Your task to perform on an android device: uninstall "Booking.com: Hotels and more" Image 0: 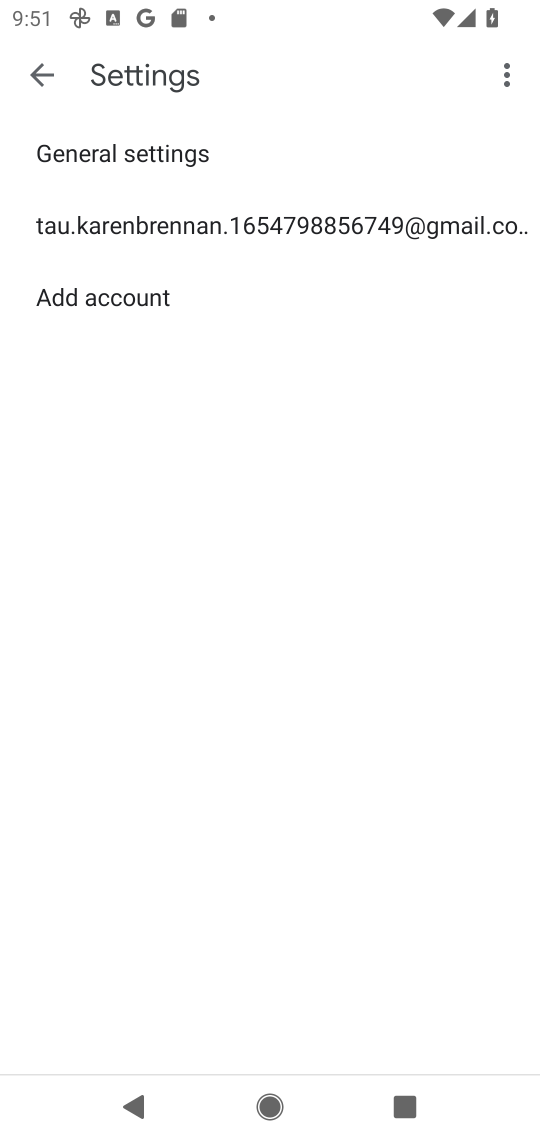
Step 0: press home button
Your task to perform on an android device: uninstall "Booking.com: Hotels and more" Image 1: 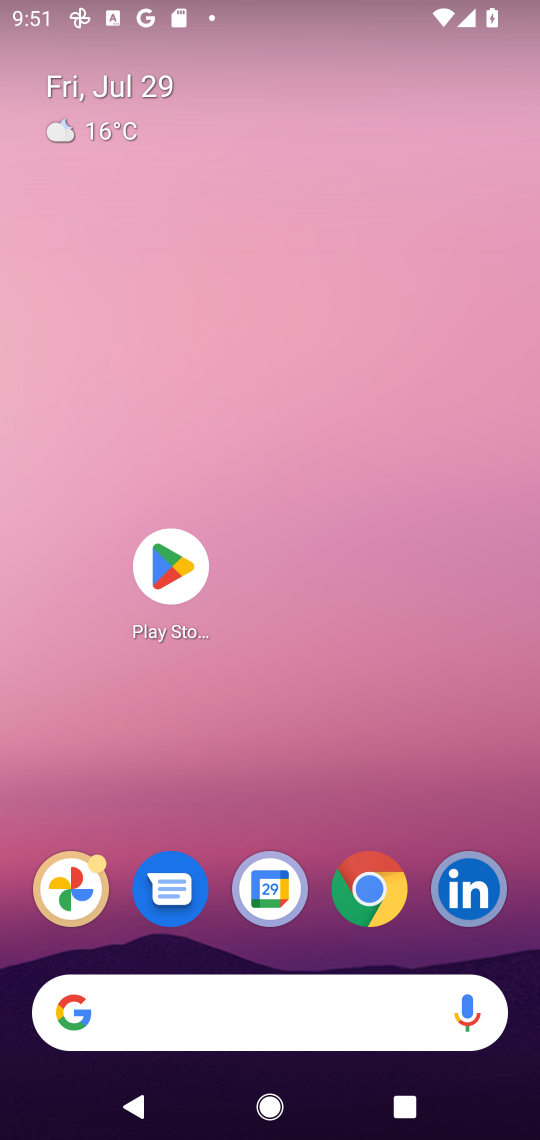
Step 1: click (189, 553)
Your task to perform on an android device: uninstall "Booking.com: Hotels and more" Image 2: 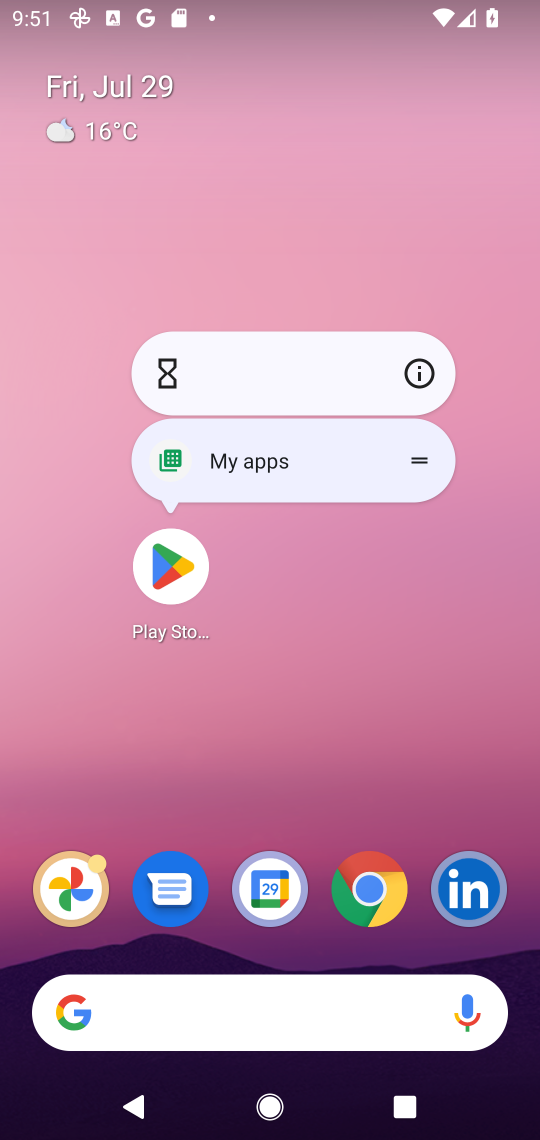
Step 2: click (164, 564)
Your task to perform on an android device: uninstall "Booking.com: Hotels and more" Image 3: 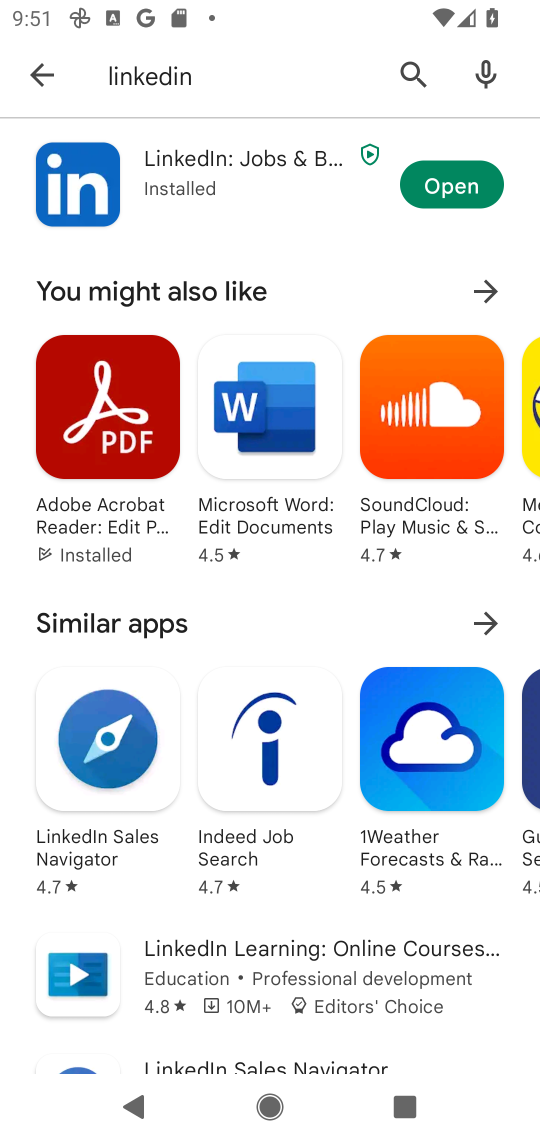
Step 3: click (403, 63)
Your task to perform on an android device: uninstall "Booking.com: Hotels and more" Image 4: 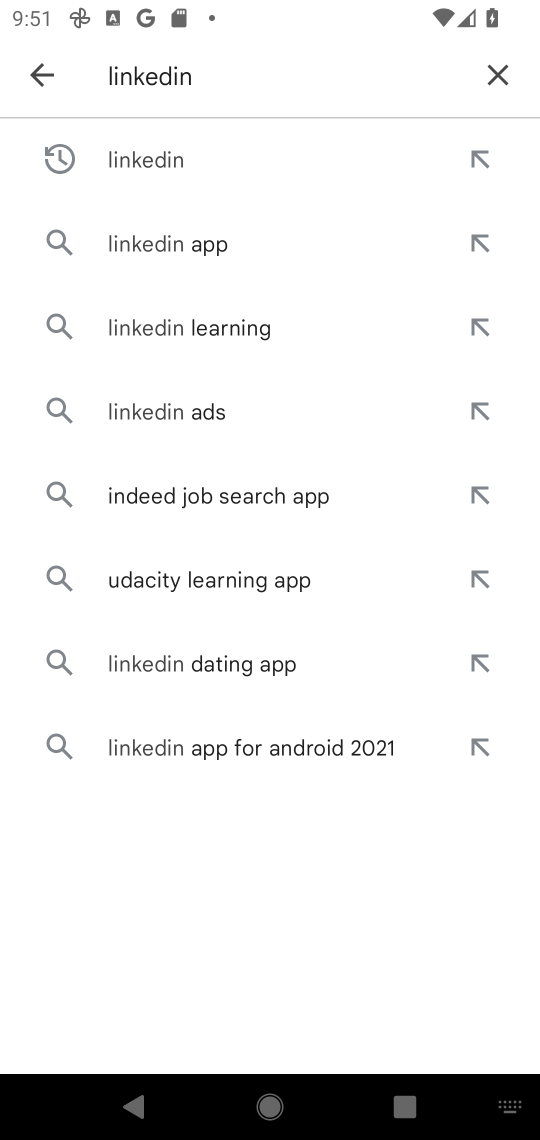
Step 4: click (491, 76)
Your task to perform on an android device: uninstall "Booking.com: Hotels and more" Image 5: 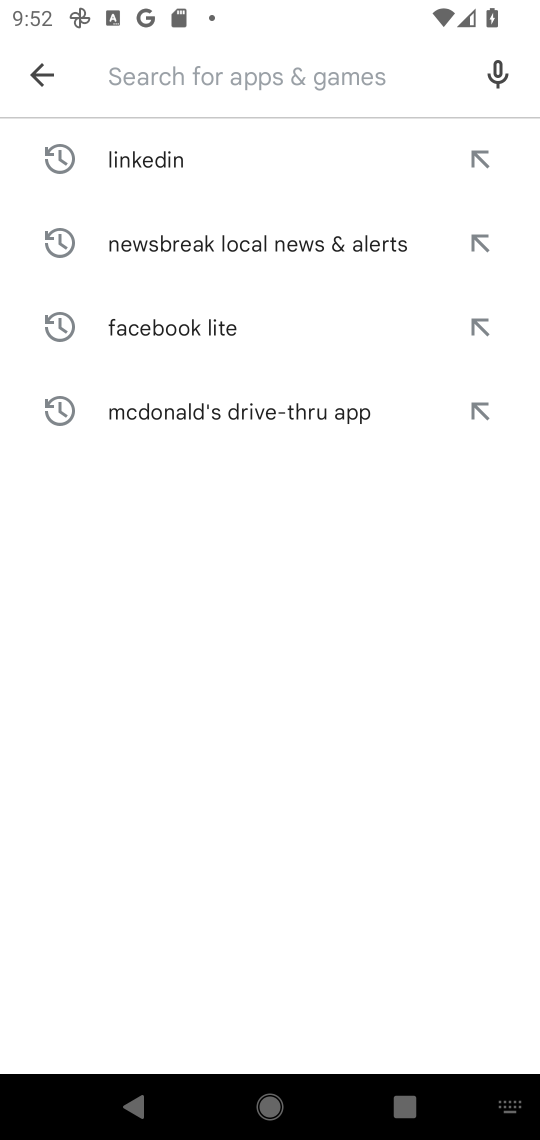
Step 5: type "Booking.com: Hotels and more"
Your task to perform on an android device: uninstall "Booking.com: Hotels and more" Image 6: 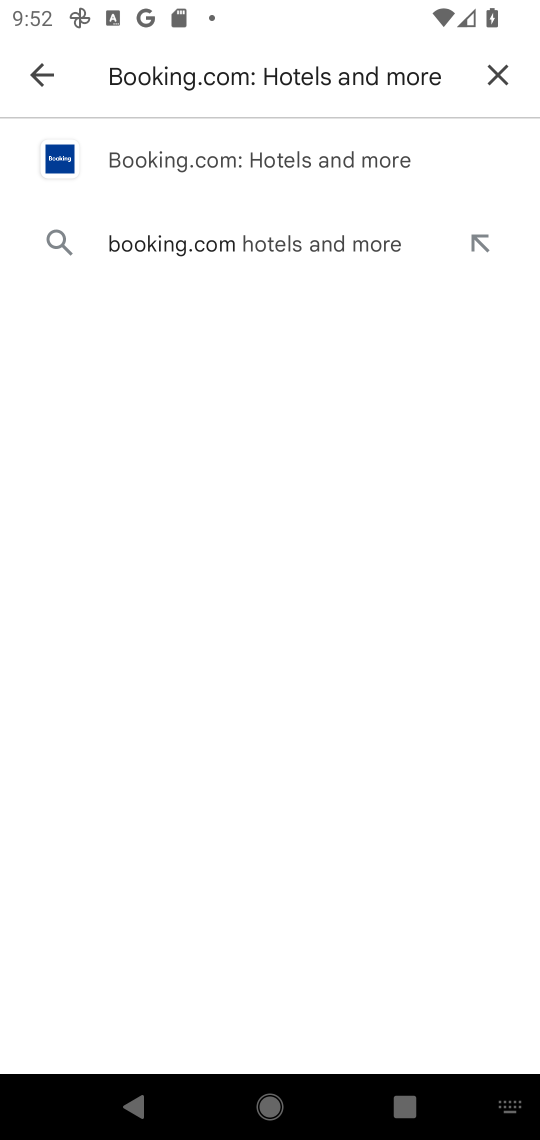
Step 6: click (354, 154)
Your task to perform on an android device: uninstall "Booking.com: Hotels and more" Image 7: 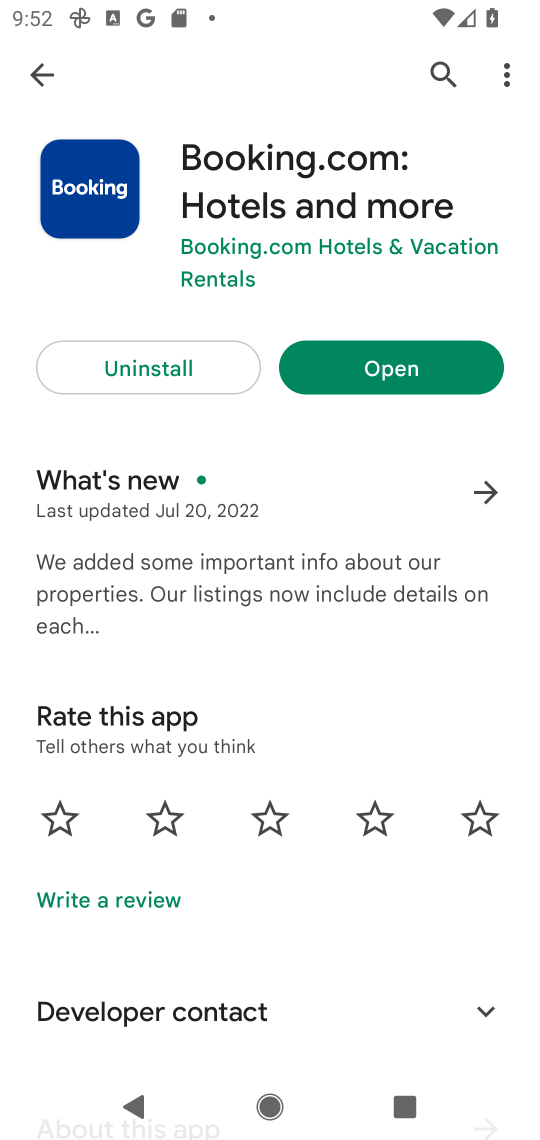
Step 7: click (153, 368)
Your task to perform on an android device: uninstall "Booking.com: Hotels and more" Image 8: 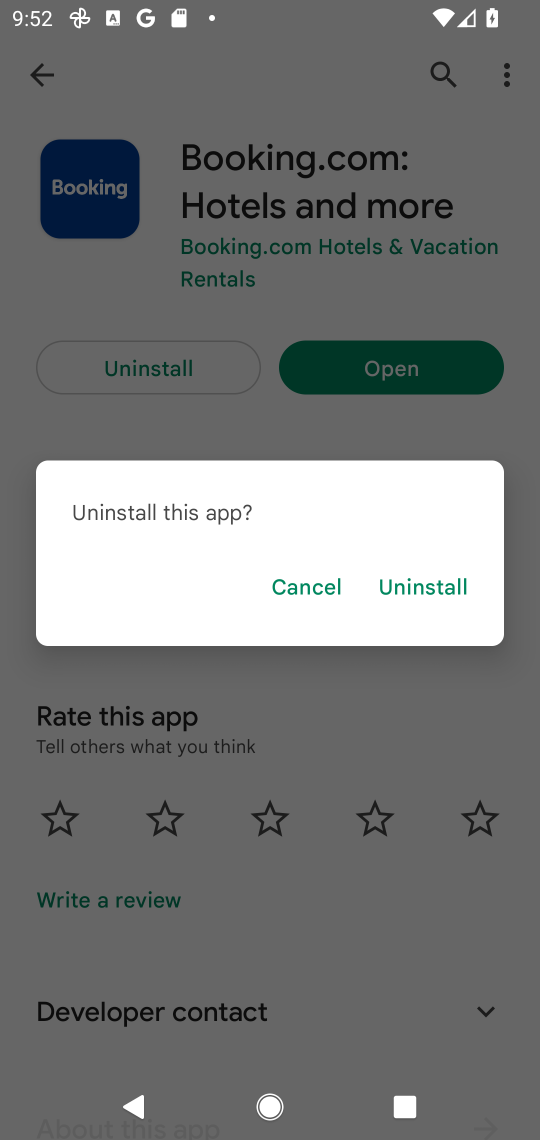
Step 8: click (416, 580)
Your task to perform on an android device: uninstall "Booking.com: Hotels and more" Image 9: 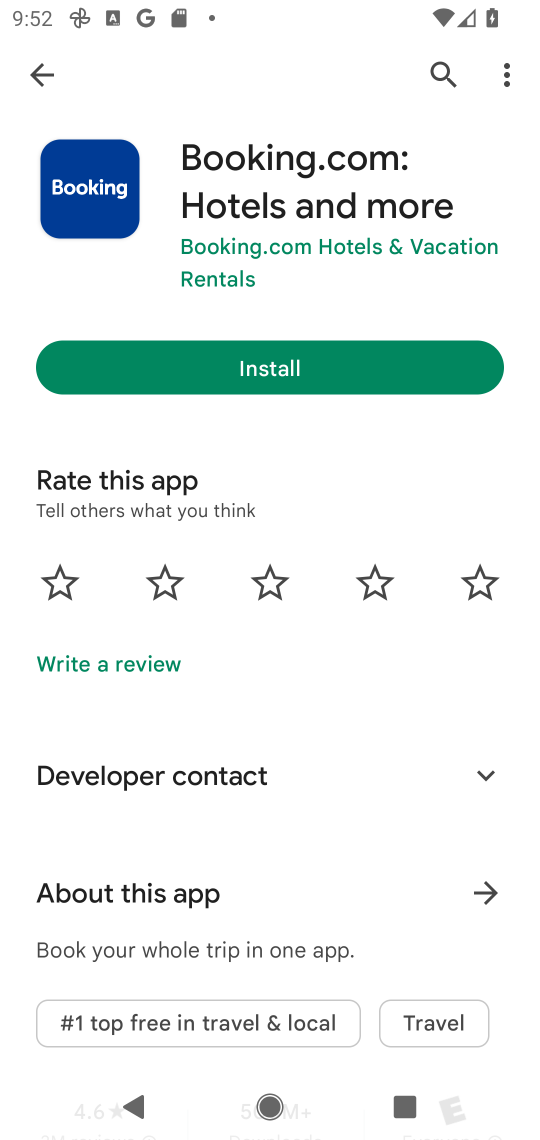
Step 9: task complete